Your task to perform on an android device: Clear all items from cart on bestbuy.com. Search for dell xps on bestbuy.com, select the first entry, add it to the cart, then select checkout. Image 0: 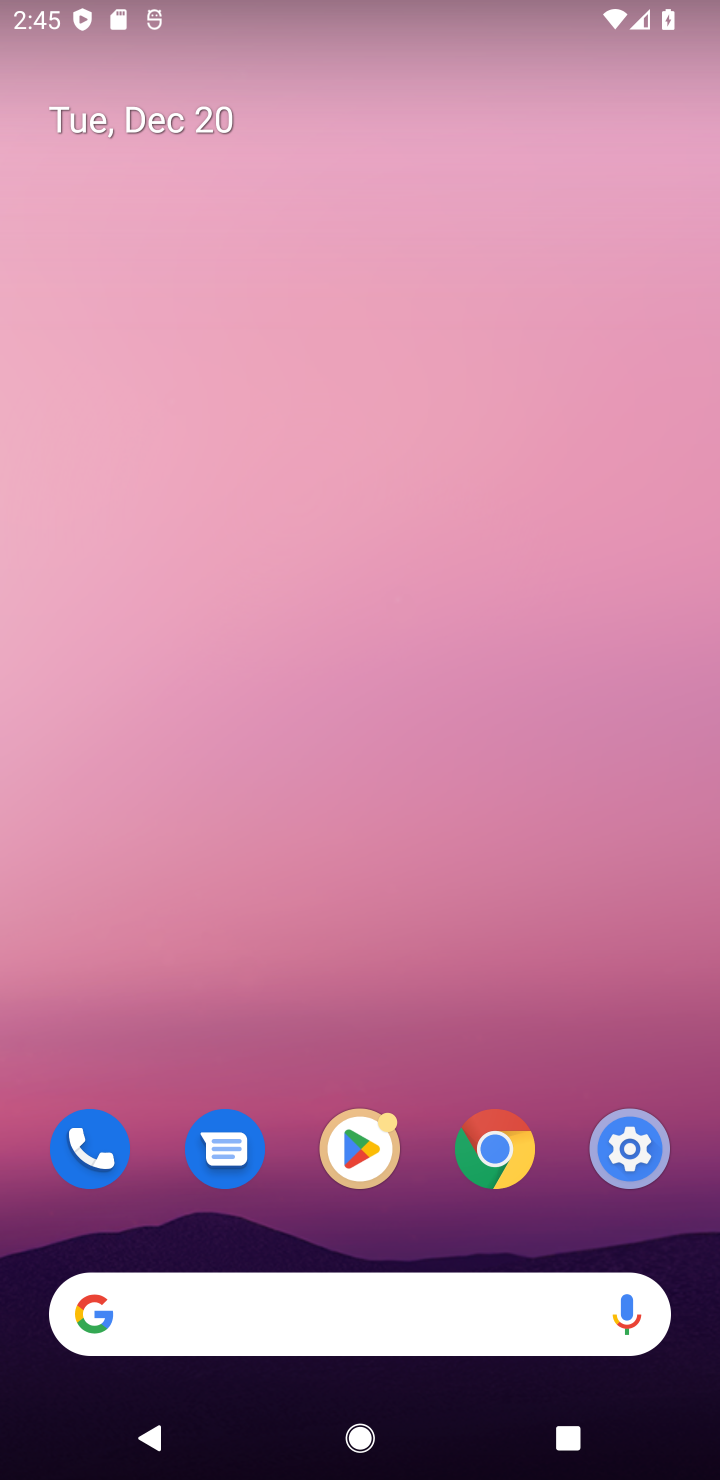
Step 0: click (497, 1140)
Your task to perform on an android device: Clear all items from cart on bestbuy.com. Search for dell xps on bestbuy.com, select the first entry, add it to the cart, then select checkout. Image 1: 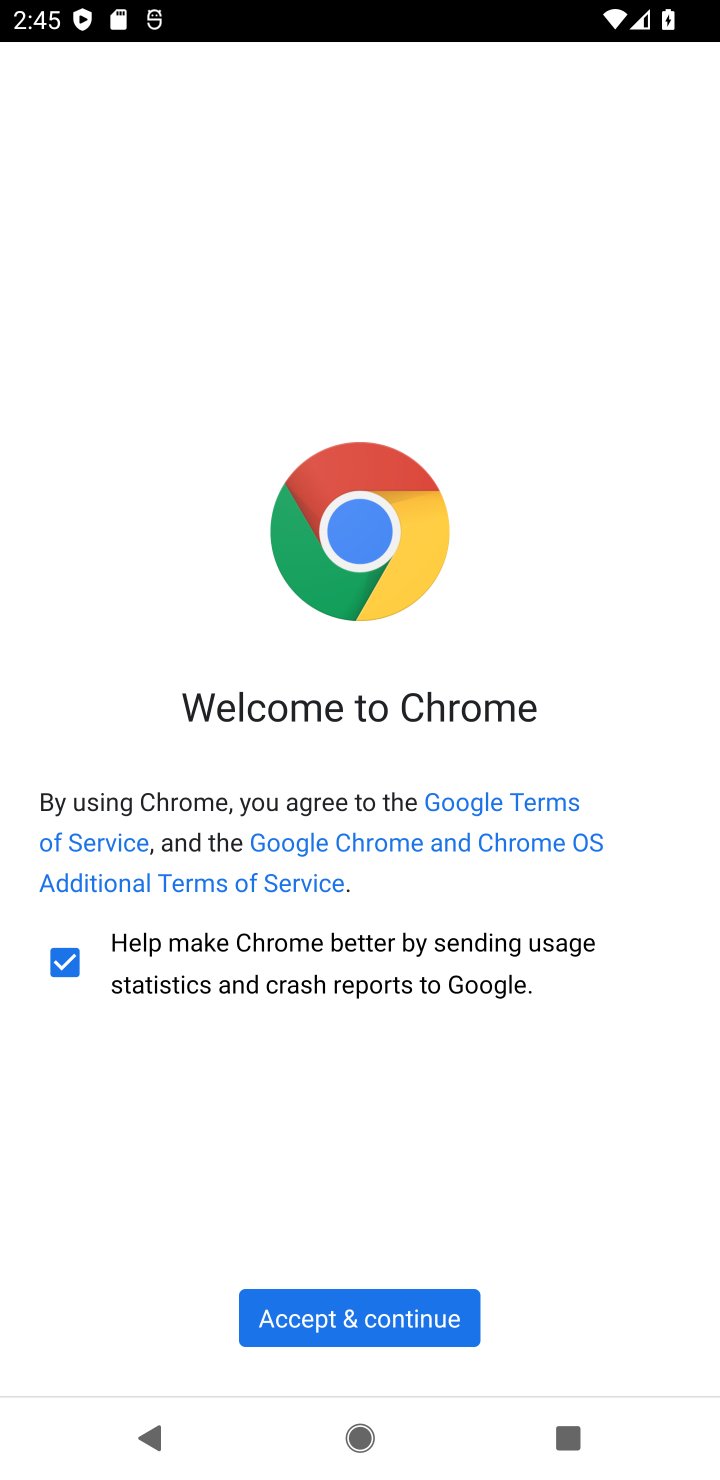
Step 1: click (393, 1314)
Your task to perform on an android device: Clear all items from cart on bestbuy.com. Search for dell xps on bestbuy.com, select the first entry, add it to the cart, then select checkout. Image 2: 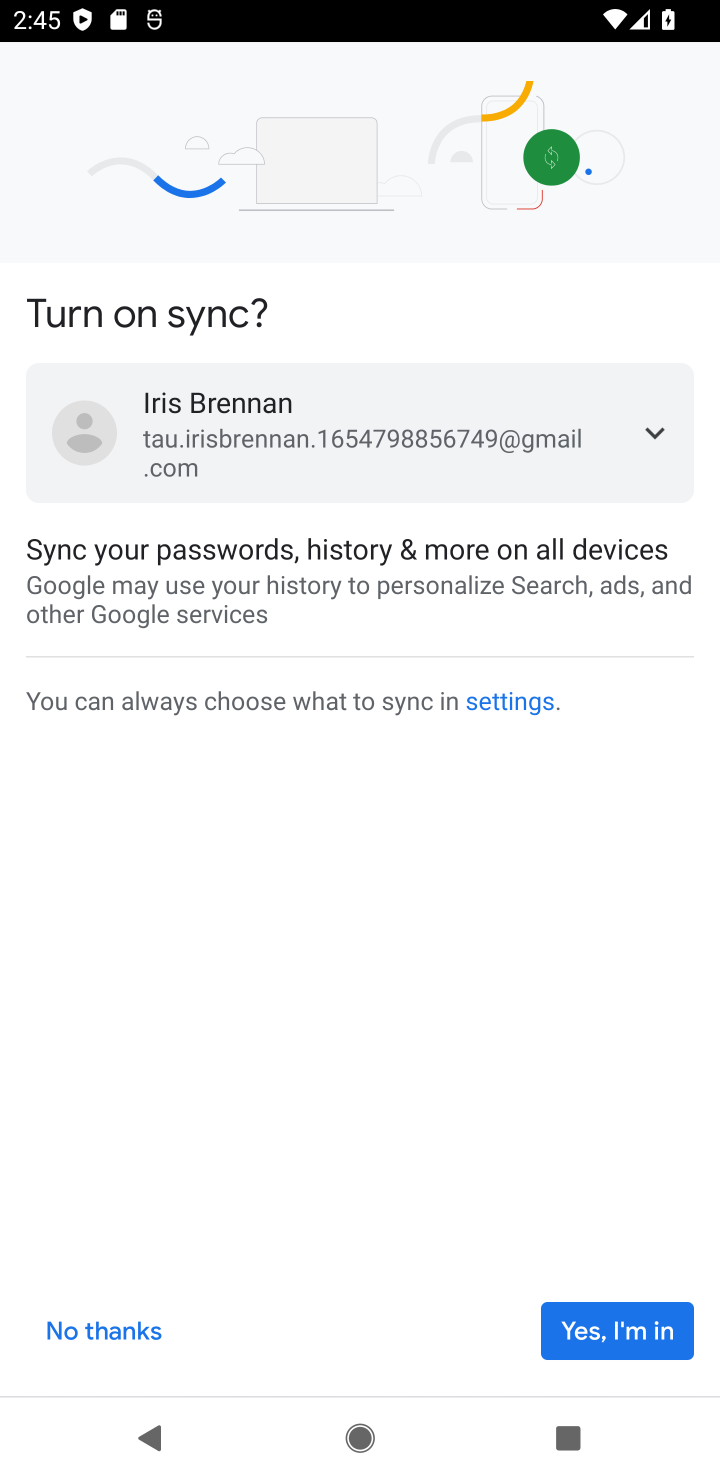
Step 2: click (84, 1327)
Your task to perform on an android device: Clear all items from cart on bestbuy.com. Search for dell xps on bestbuy.com, select the first entry, add it to the cart, then select checkout. Image 3: 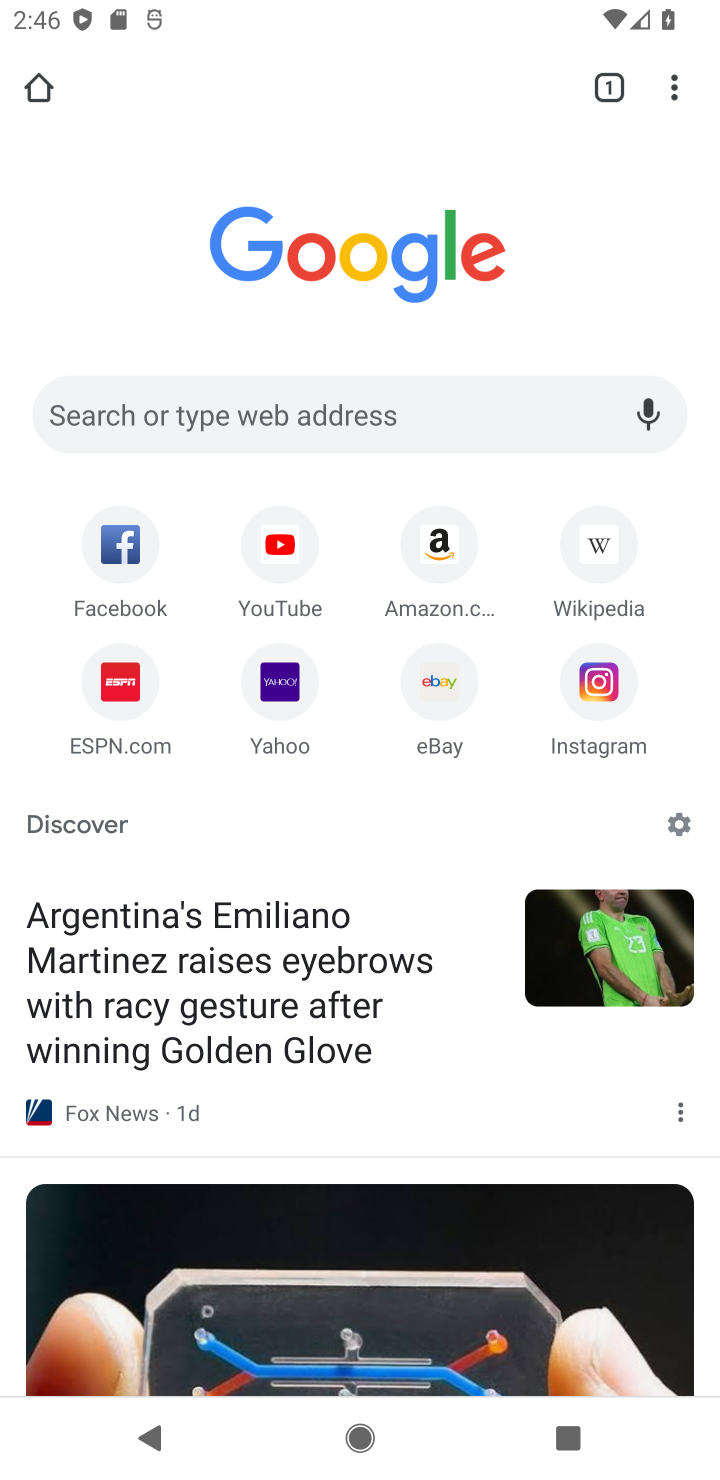
Step 3: click (218, 424)
Your task to perform on an android device: Clear all items from cart on bestbuy.com. Search for dell xps on bestbuy.com, select the first entry, add it to the cart, then select checkout. Image 4: 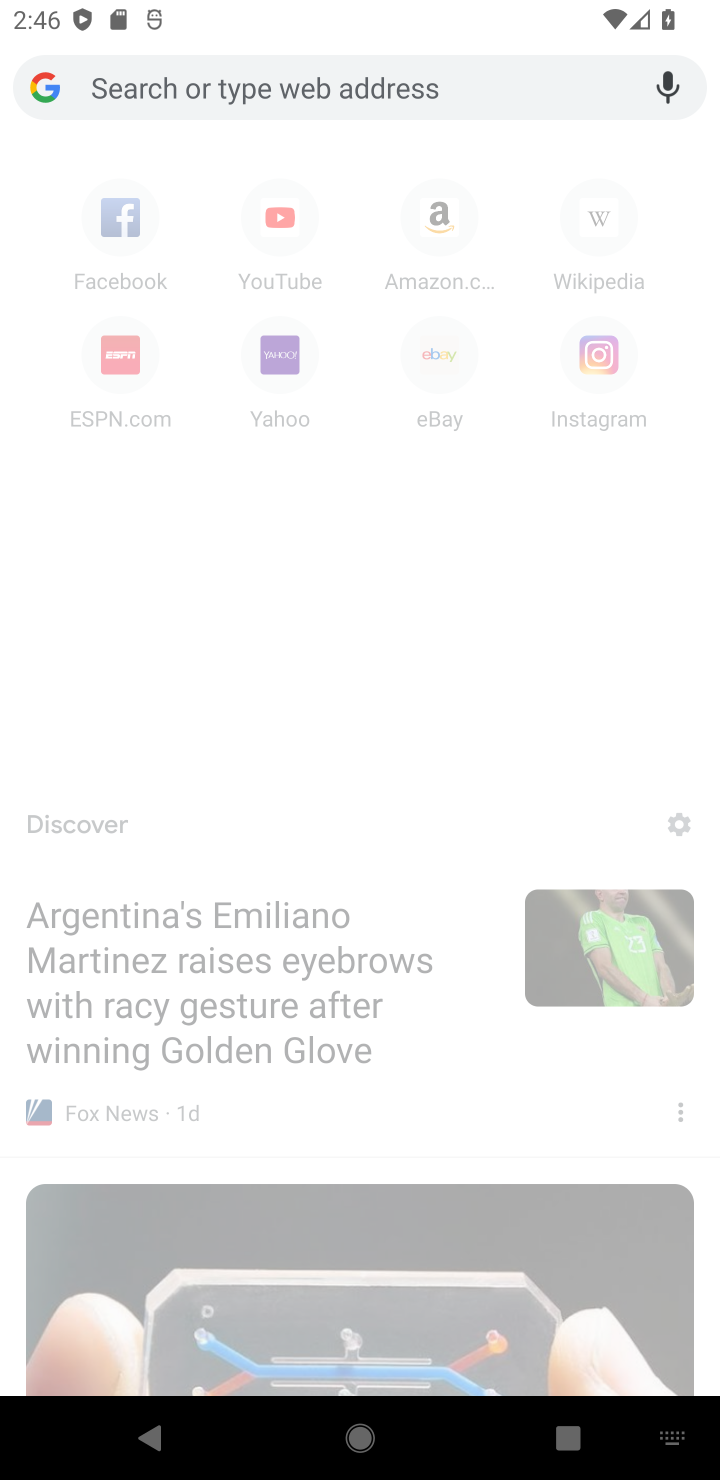
Step 4: type "bestbuy.com"
Your task to perform on an android device: Clear all items from cart on bestbuy.com. Search for dell xps on bestbuy.com, select the first entry, add it to the cart, then select checkout. Image 5: 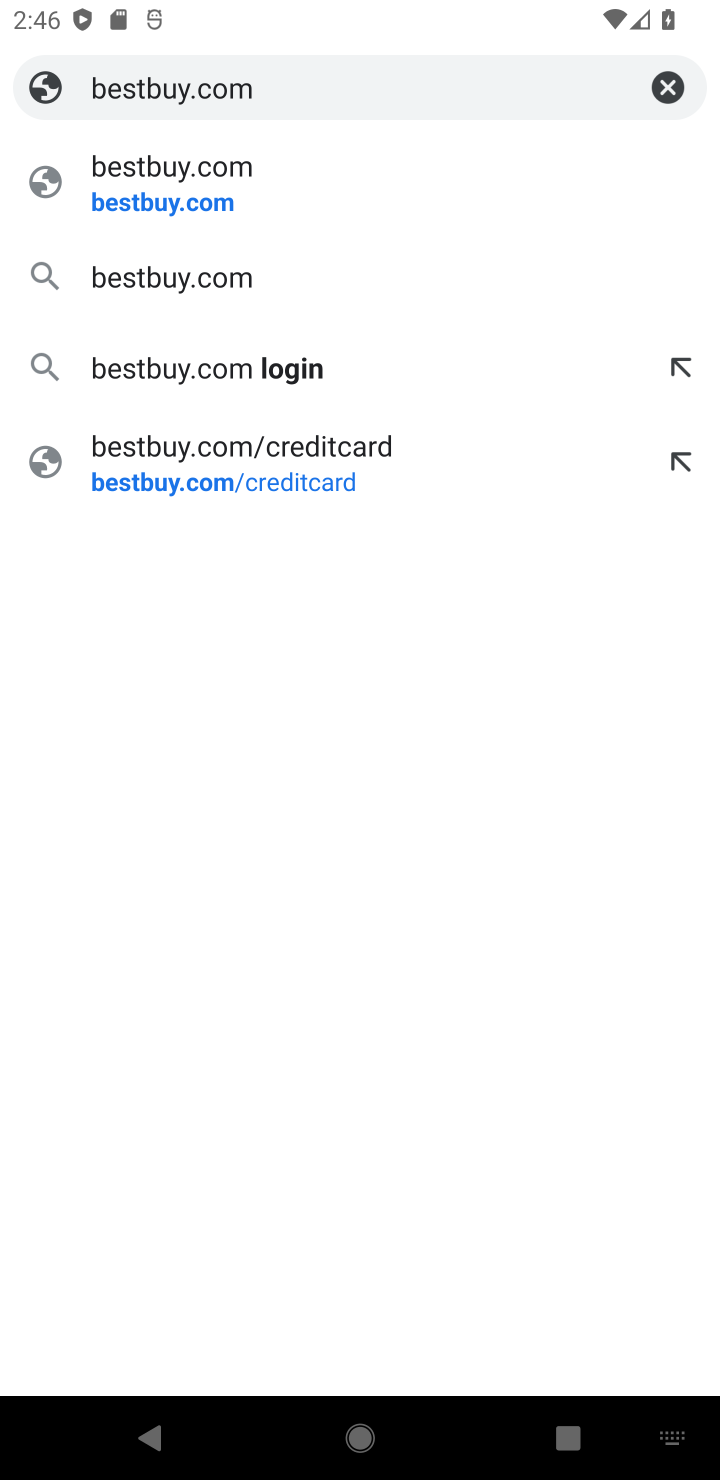
Step 5: click (171, 202)
Your task to perform on an android device: Clear all items from cart on bestbuy.com. Search for dell xps on bestbuy.com, select the first entry, add it to the cart, then select checkout. Image 6: 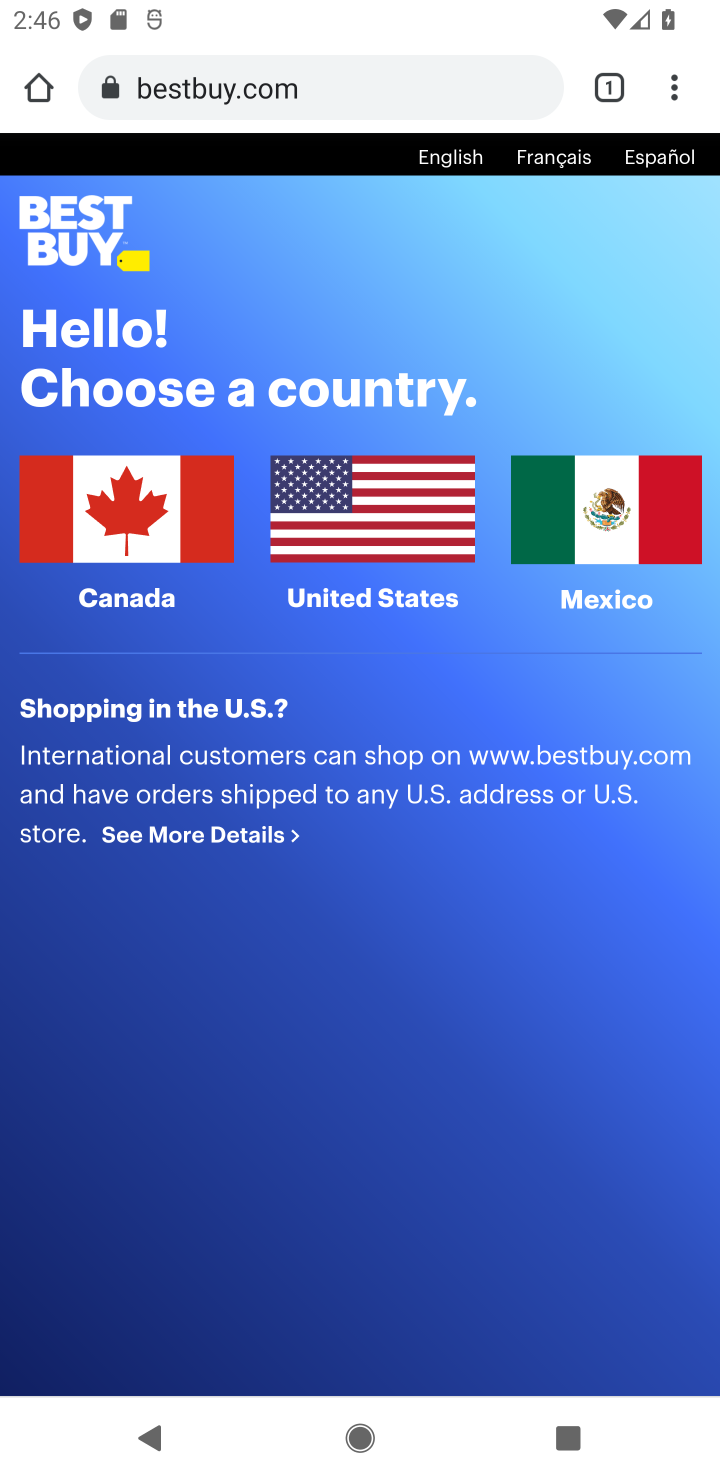
Step 6: click (344, 520)
Your task to perform on an android device: Clear all items from cart on bestbuy.com. Search for dell xps on bestbuy.com, select the first entry, add it to the cart, then select checkout. Image 7: 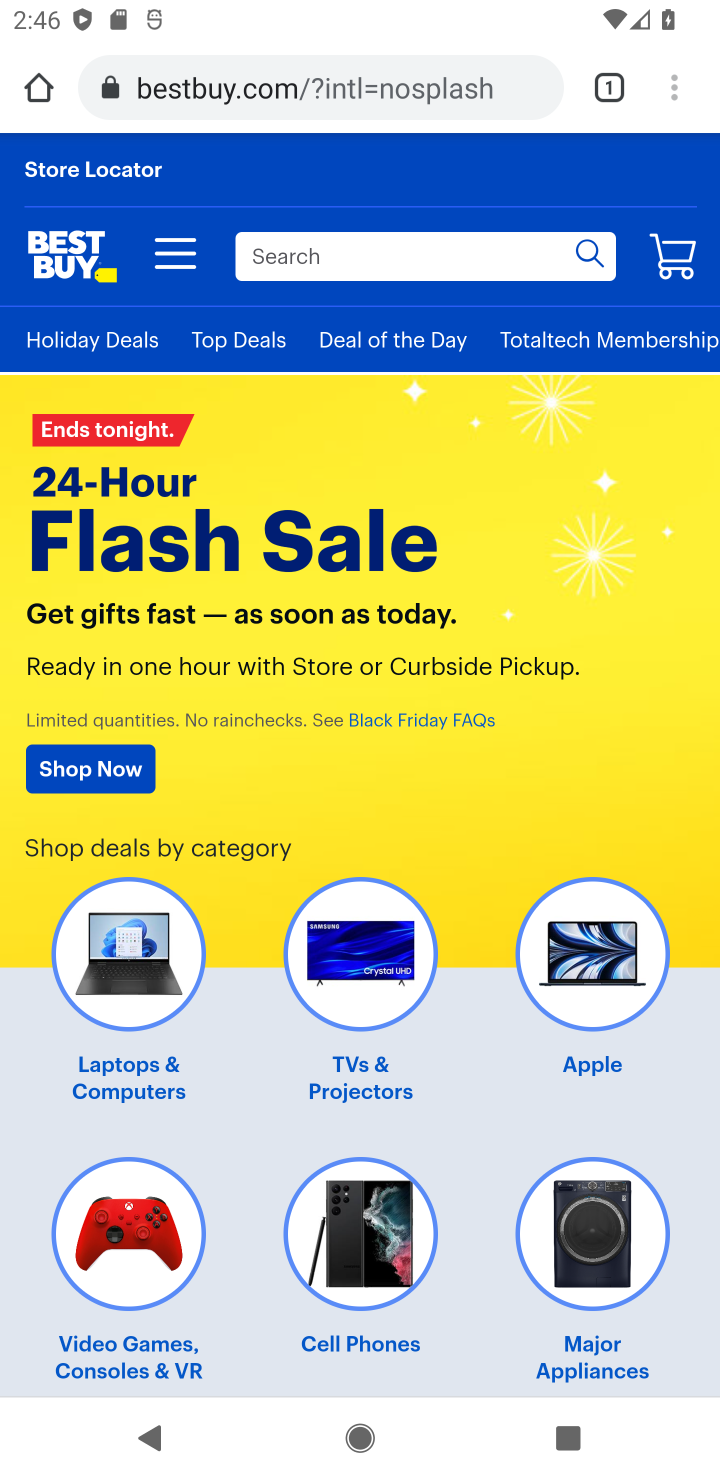
Step 7: click (683, 270)
Your task to perform on an android device: Clear all items from cart on bestbuy.com. Search for dell xps on bestbuy.com, select the first entry, add it to the cart, then select checkout. Image 8: 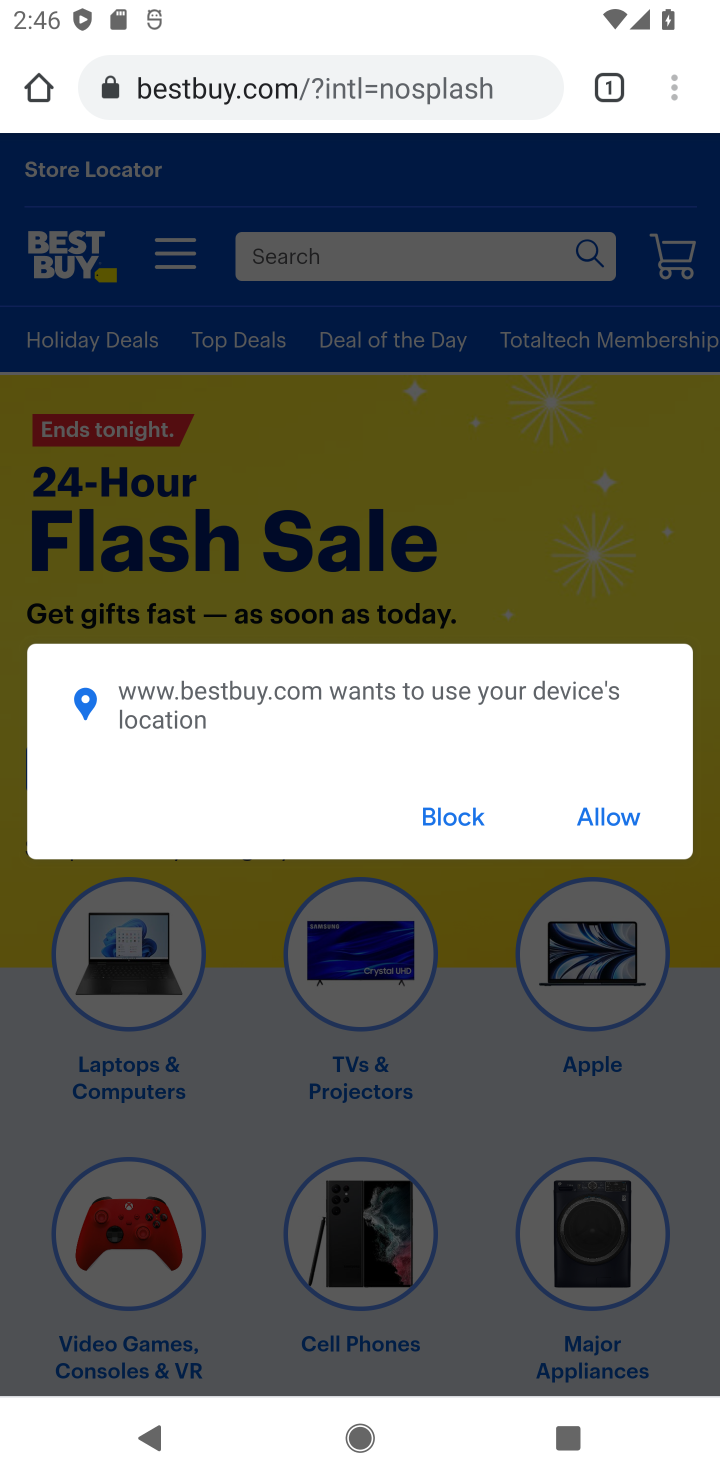
Step 8: click (434, 828)
Your task to perform on an android device: Clear all items from cart on bestbuy.com. Search for dell xps on bestbuy.com, select the first entry, add it to the cart, then select checkout. Image 9: 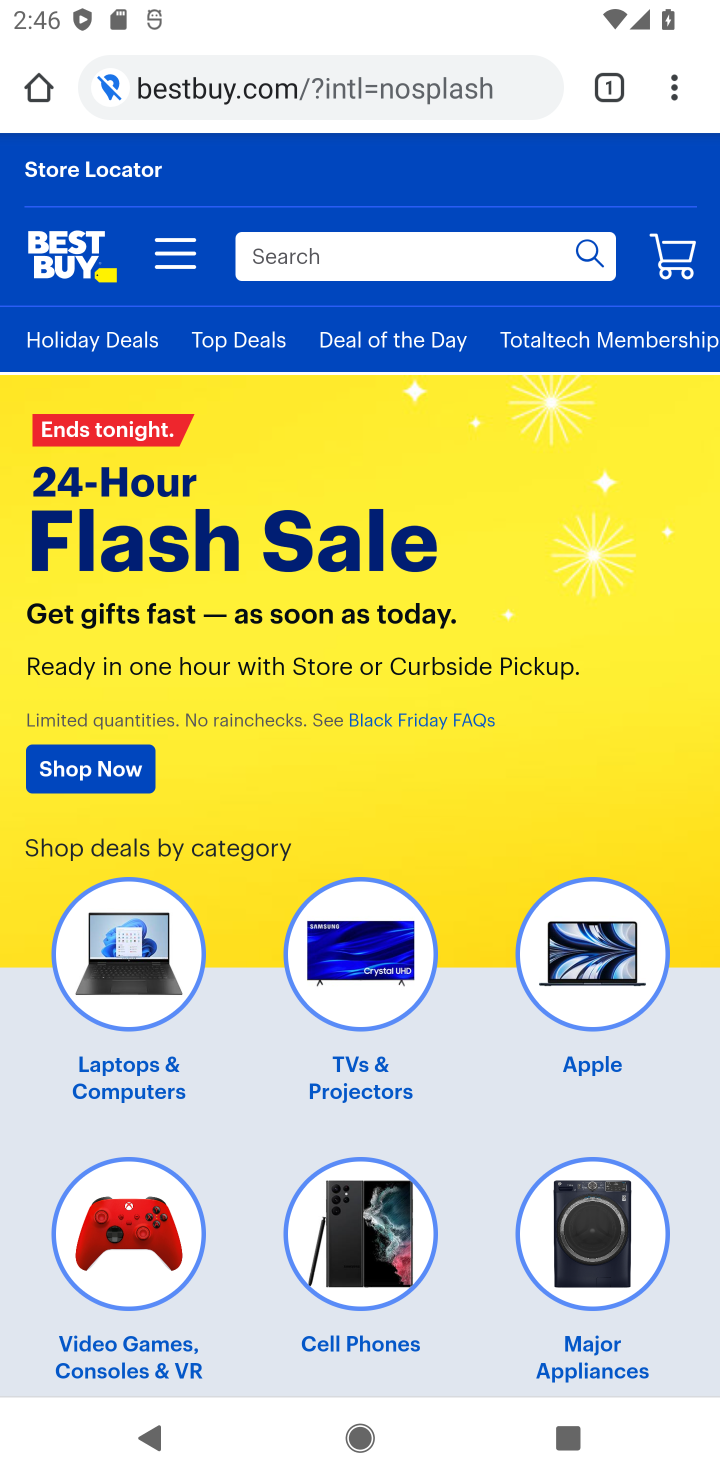
Step 9: click (673, 253)
Your task to perform on an android device: Clear all items from cart on bestbuy.com. Search for dell xps on bestbuy.com, select the first entry, add it to the cart, then select checkout. Image 10: 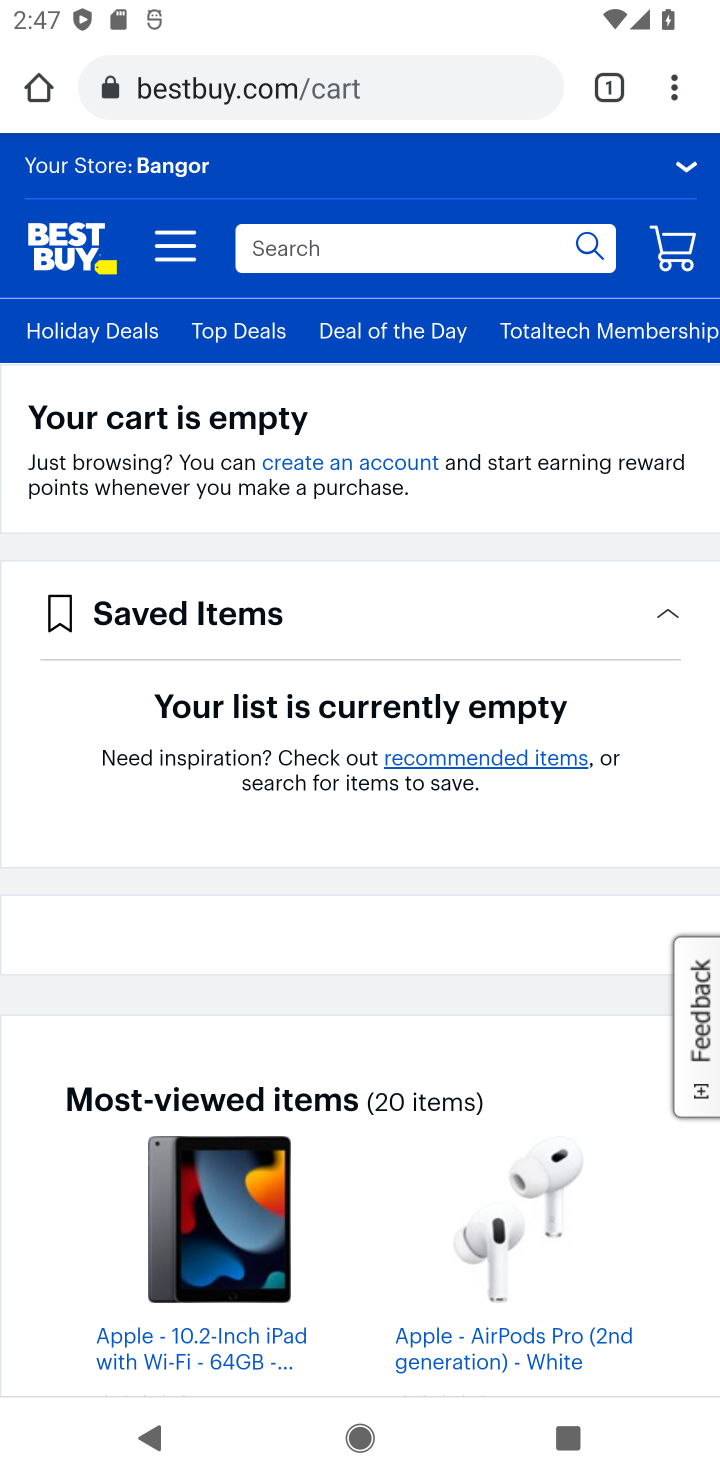
Step 10: click (292, 248)
Your task to perform on an android device: Clear all items from cart on bestbuy.com. Search for dell xps on bestbuy.com, select the first entry, add it to the cart, then select checkout. Image 11: 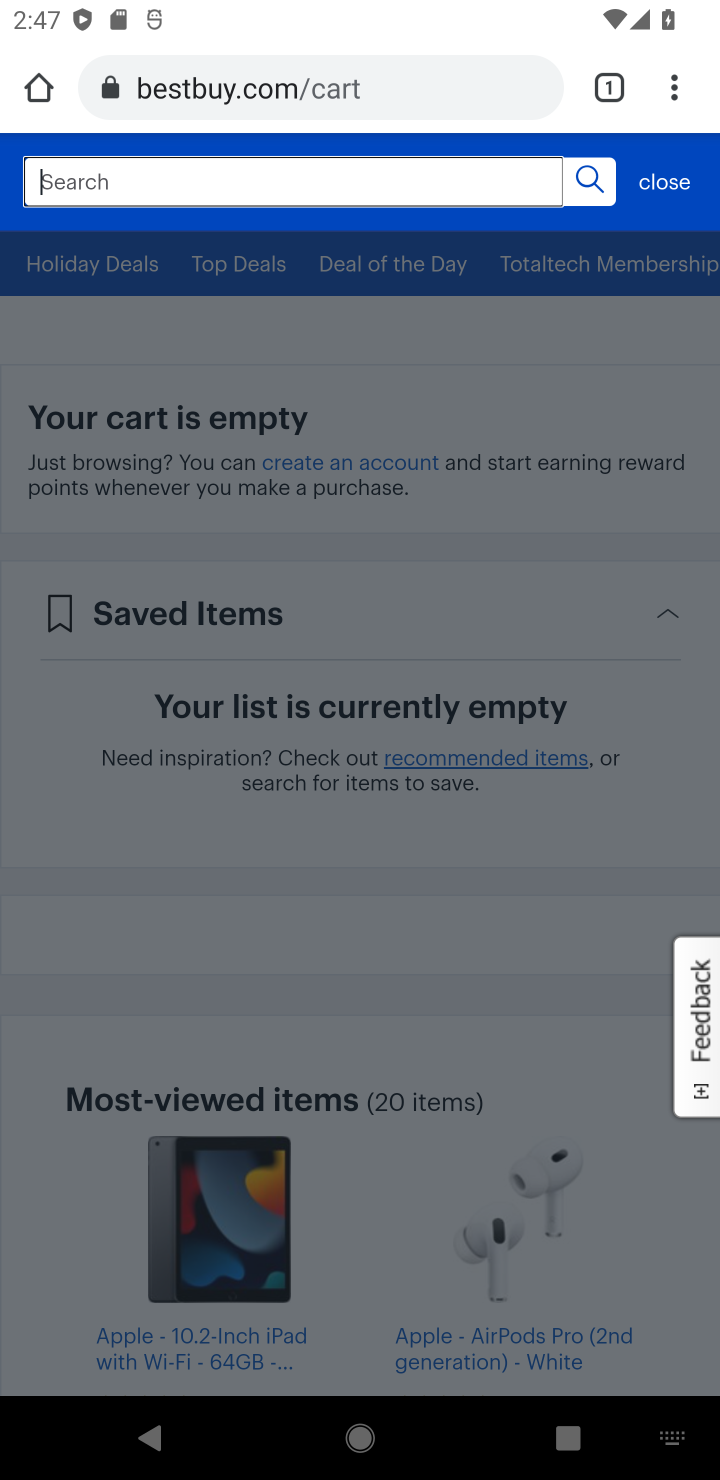
Step 11: type "dell xps"
Your task to perform on an android device: Clear all items from cart on bestbuy.com. Search for dell xps on bestbuy.com, select the first entry, add it to the cart, then select checkout. Image 12: 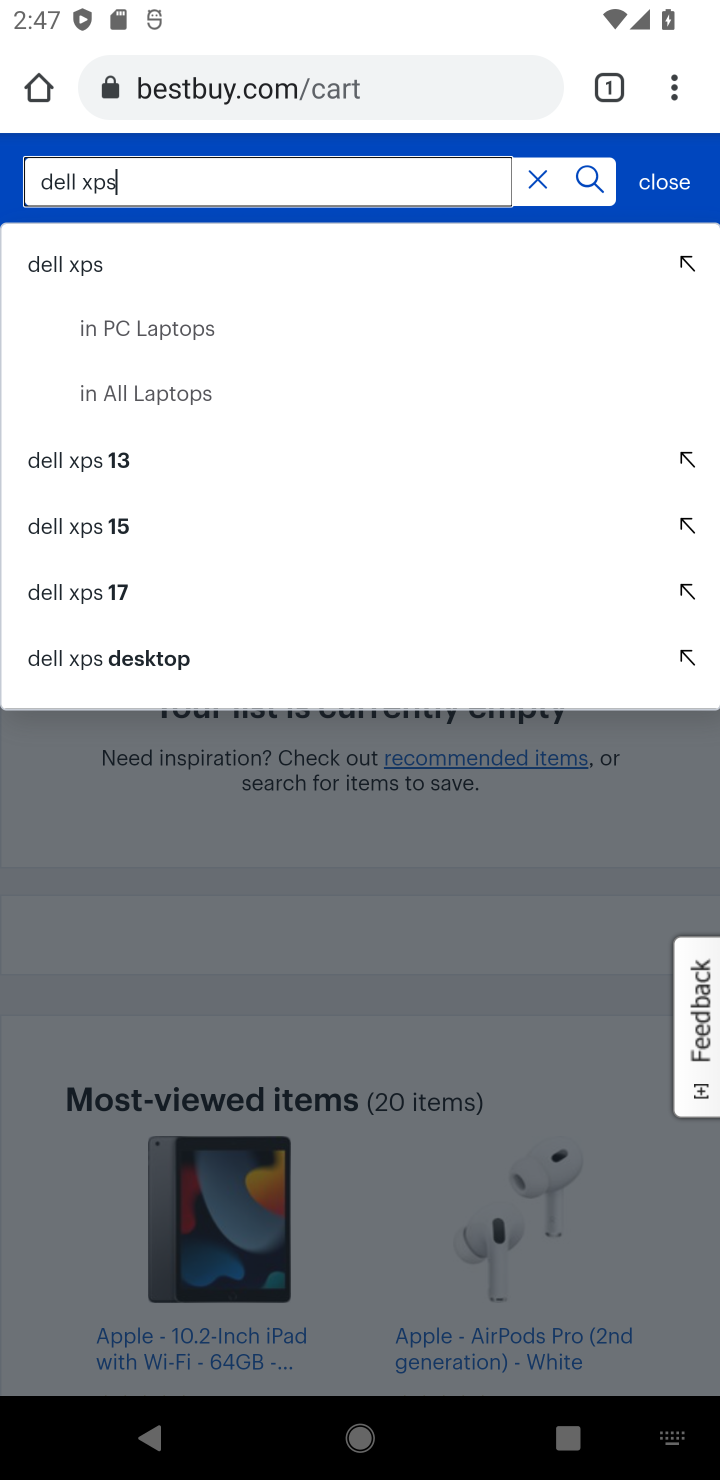
Step 12: click (46, 268)
Your task to perform on an android device: Clear all items from cart on bestbuy.com. Search for dell xps on bestbuy.com, select the first entry, add it to the cart, then select checkout. Image 13: 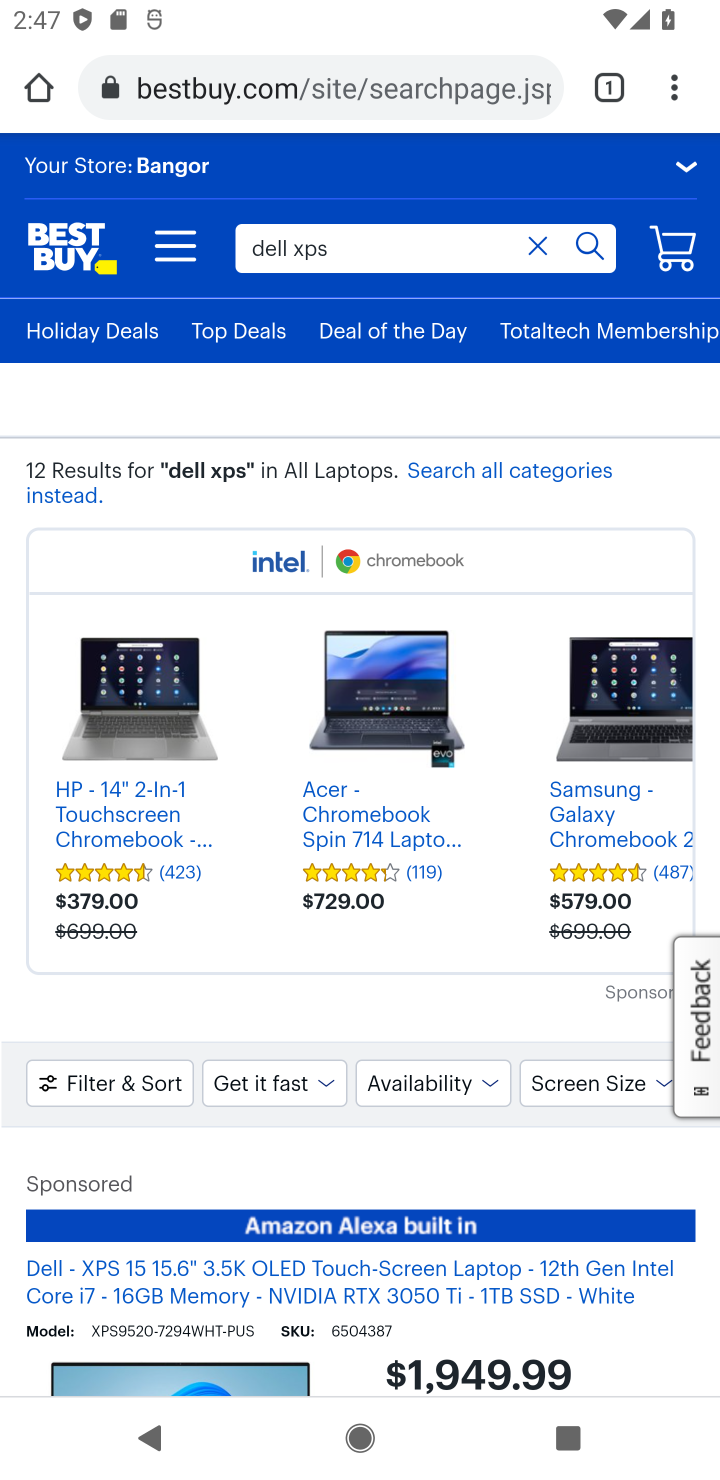
Step 13: drag from (365, 1065) to (395, 494)
Your task to perform on an android device: Clear all items from cart on bestbuy.com. Search for dell xps on bestbuy.com, select the first entry, add it to the cart, then select checkout. Image 14: 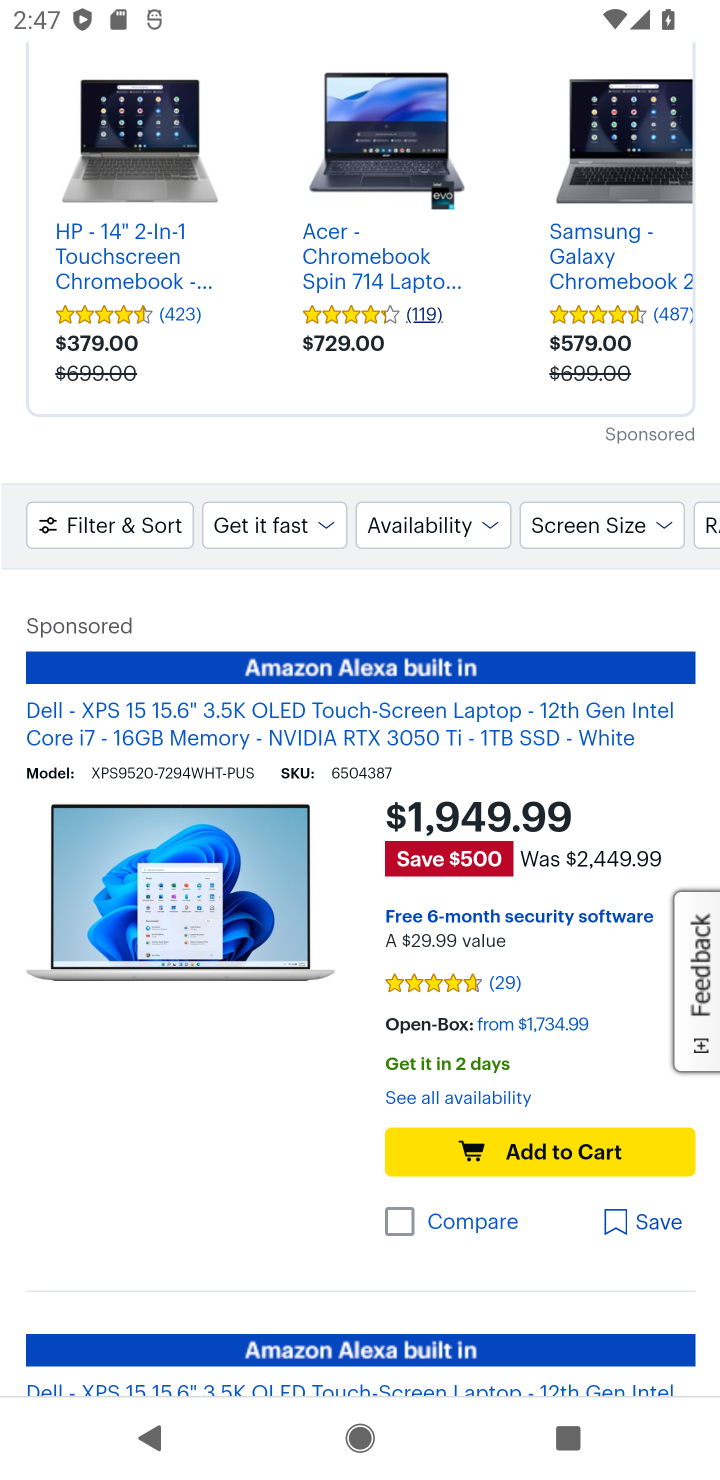
Step 14: click (525, 1150)
Your task to perform on an android device: Clear all items from cart on bestbuy.com. Search for dell xps on bestbuy.com, select the first entry, add it to the cart, then select checkout. Image 15: 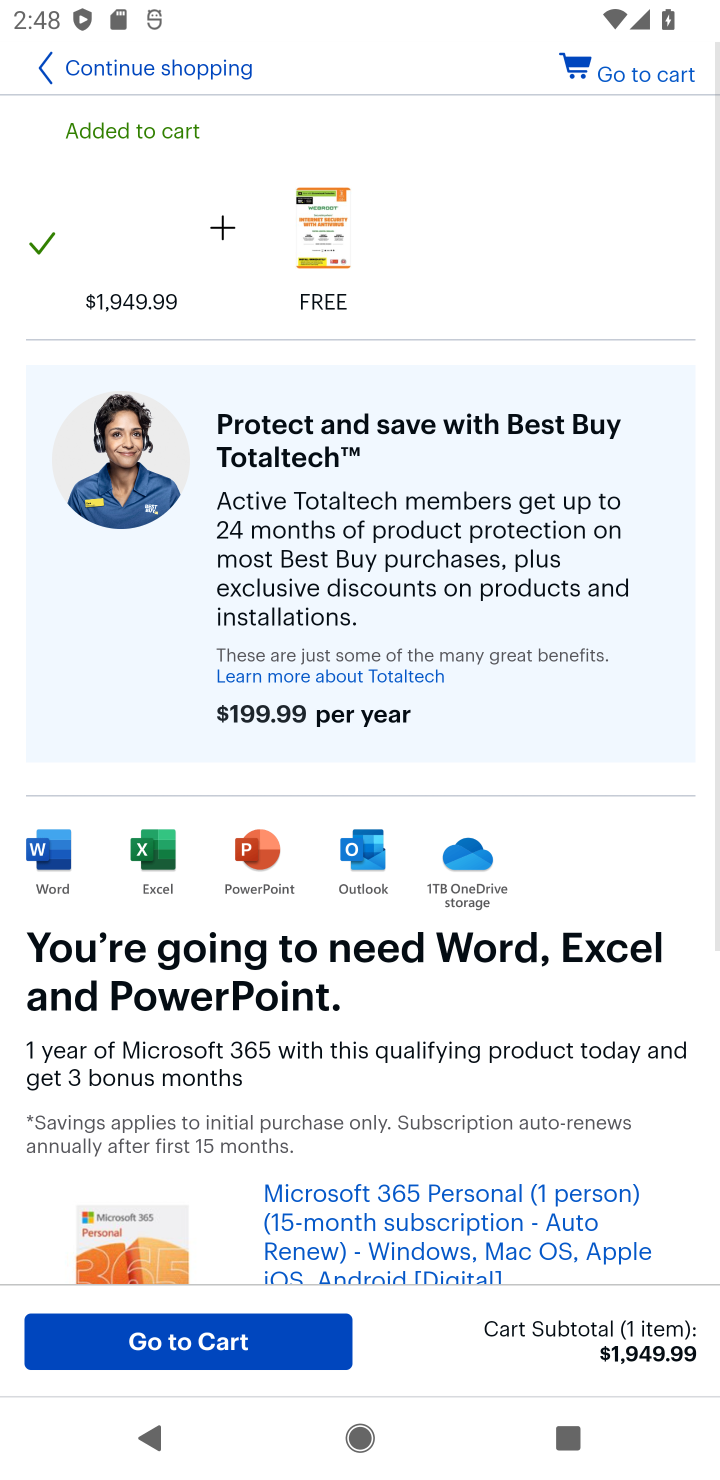
Step 15: click (653, 80)
Your task to perform on an android device: Clear all items from cart on bestbuy.com. Search for dell xps on bestbuy.com, select the first entry, add it to the cart, then select checkout. Image 16: 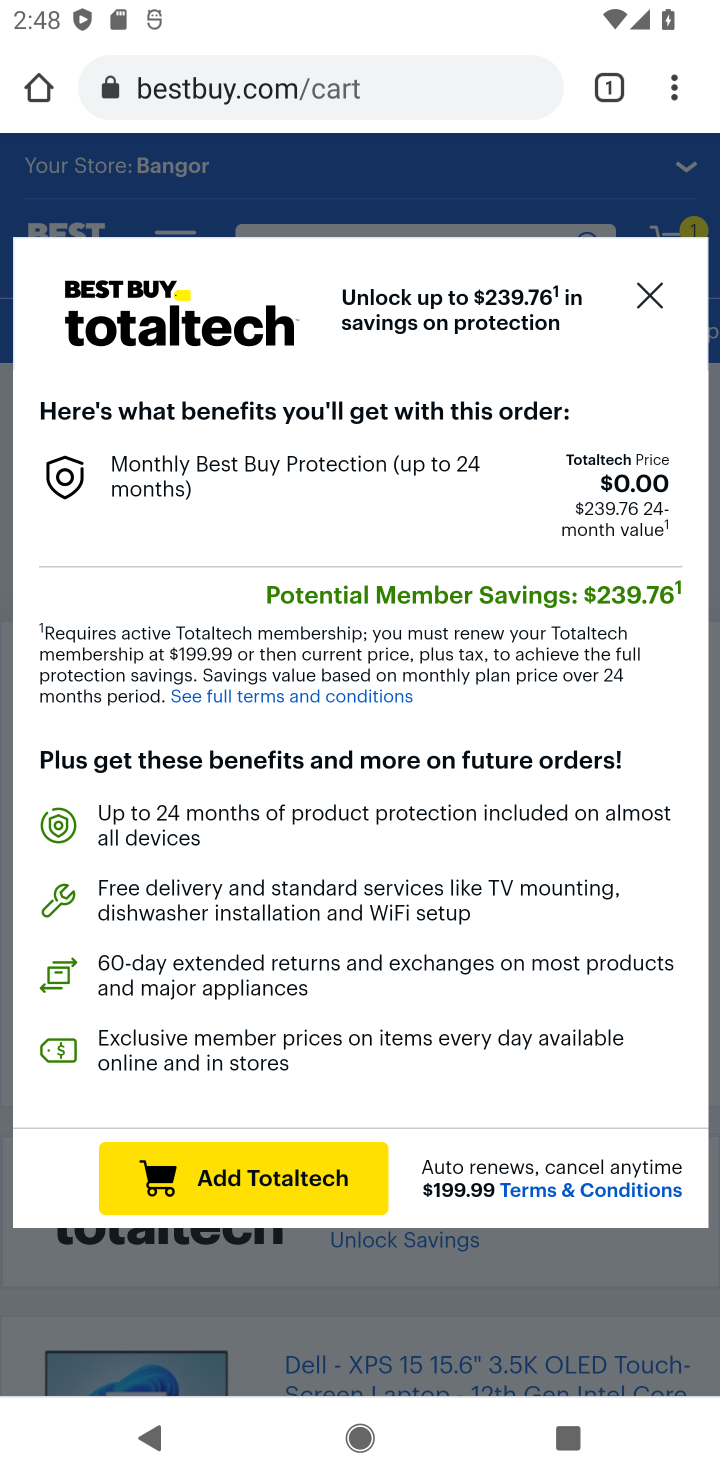
Step 16: click (638, 306)
Your task to perform on an android device: Clear all items from cart on bestbuy.com. Search for dell xps on bestbuy.com, select the first entry, add it to the cart, then select checkout. Image 17: 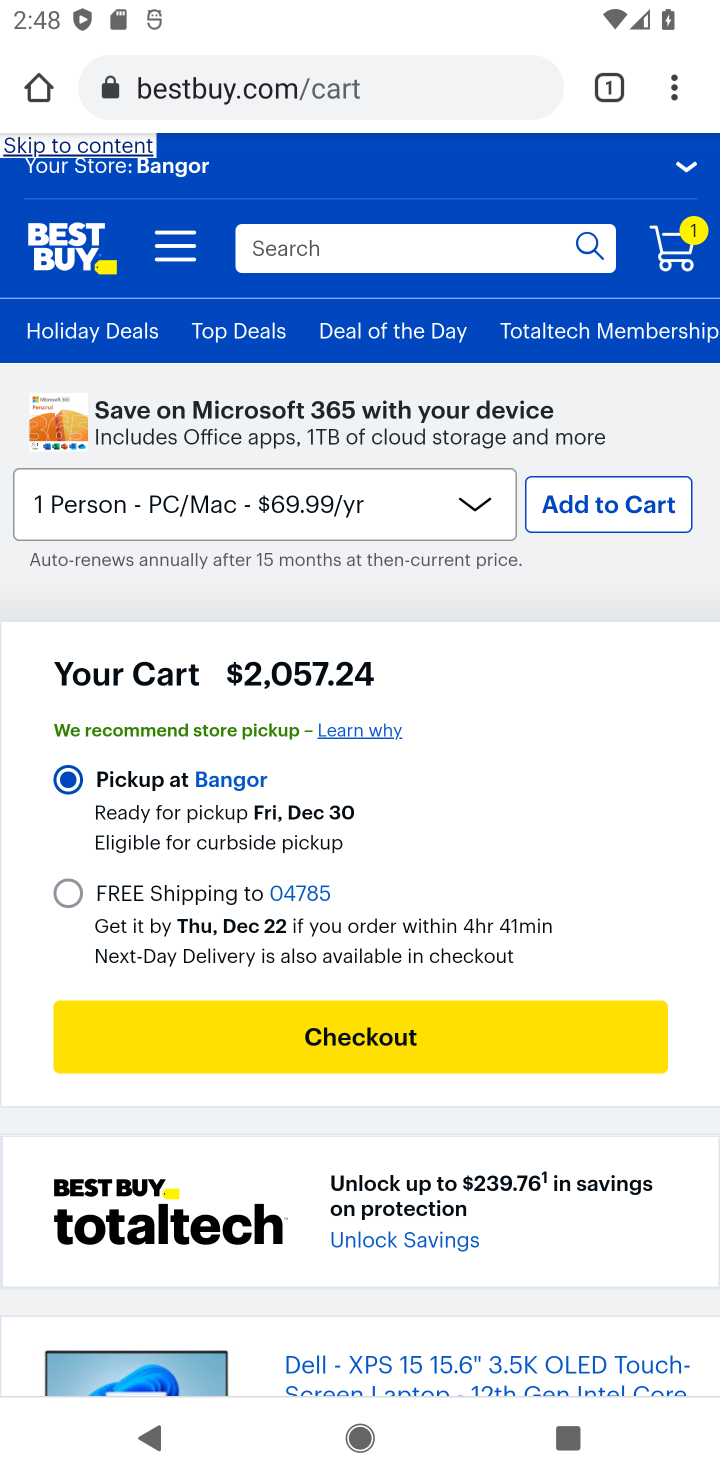
Step 17: click (357, 1048)
Your task to perform on an android device: Clear all items from cart on bestbuy.com. Search for dell xps on bestbuy.com, select the first entry, add it to the cart, then select checkout. Image 18: 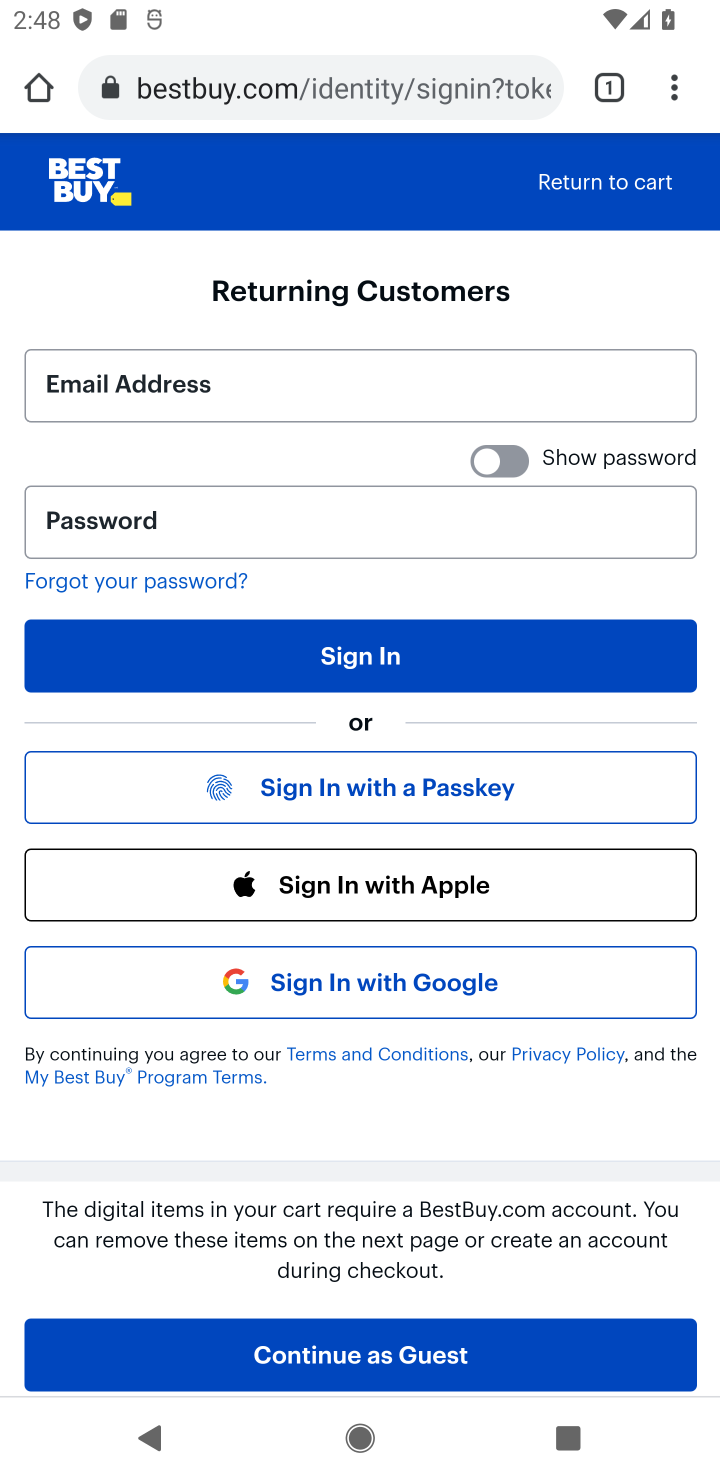
Step 18: task complete